Your task to perform on an android device: Go to Google Image 0: 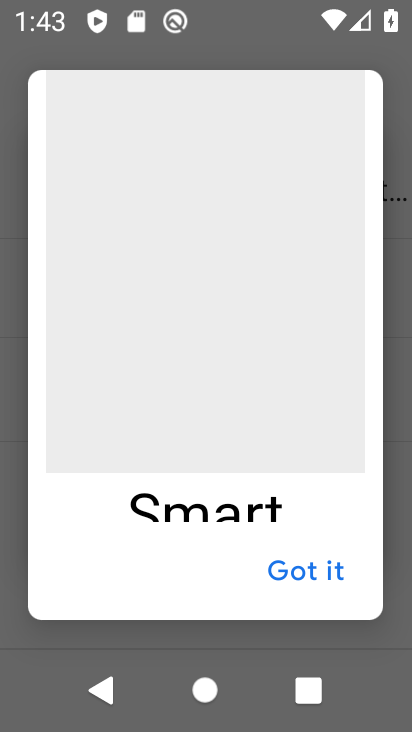
Step 0: press home button
Your task to perform on an android device: Go to Google Image 1: 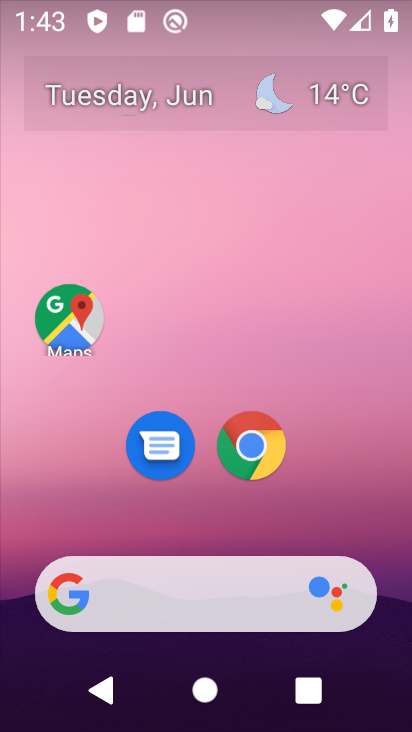
Step 1: drag from (336, 522) to (317, 194)
Your task to perform on an android device: Go to Google Image 2: 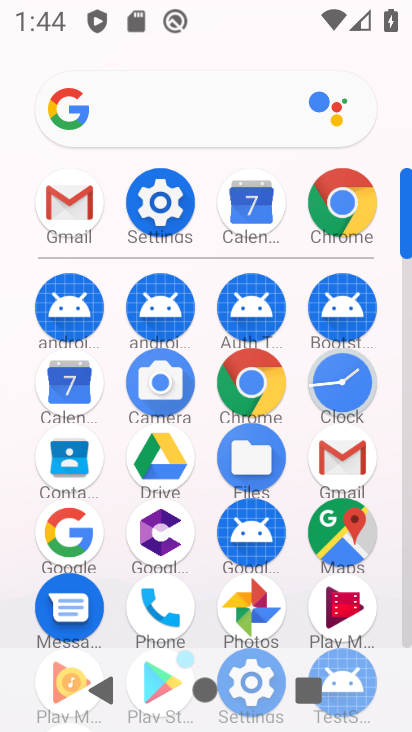
Step 2: click (63, 546)
Your task to perform on an android device: Go to Google Image 3: 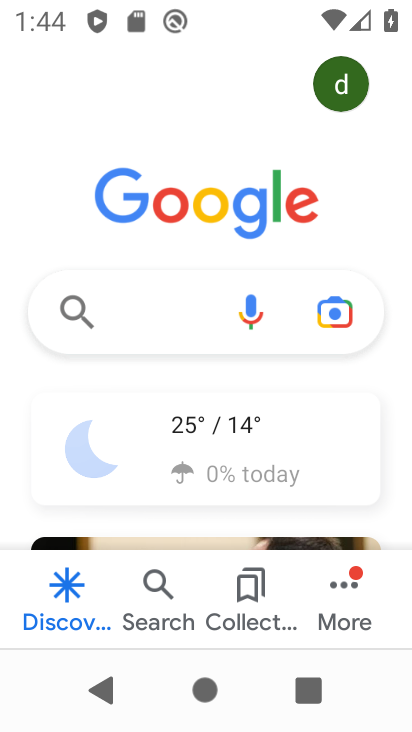
Step 3: task complete